Your task to perform on an android device: open app "Indeed Job Search" (install if not already installed) Image 0: 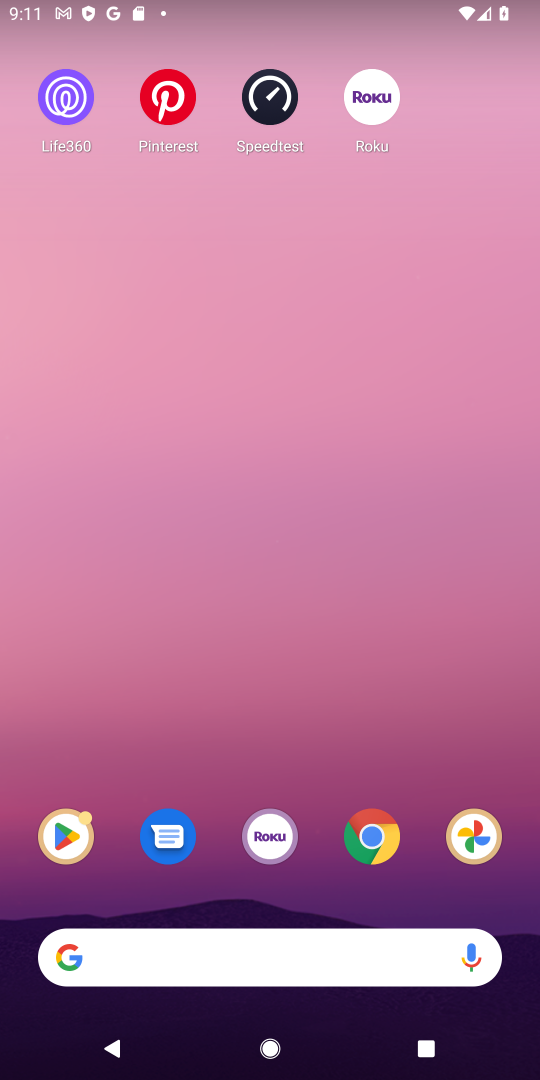
Step 0: drag from (237, 193) to (202, 40)
Your task to perform on an android device: open app "Indeed Job Search" (install if not already installed) Image 1: 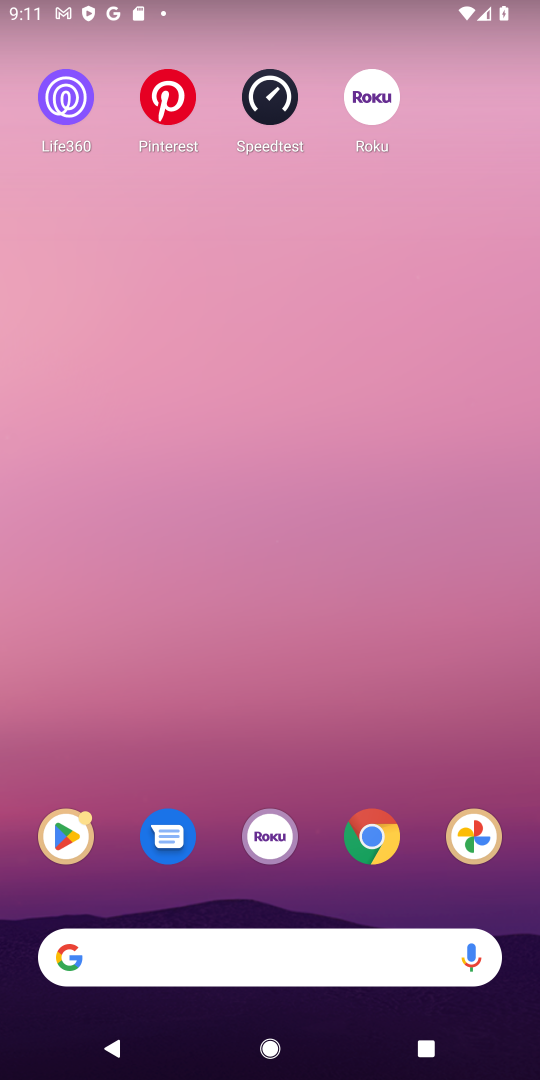
Step 1: drag from (246, 852) to (277, 76)
Your task to perform on an android device: open app "Indeed Job Search" (install if not already installed) Image 2: 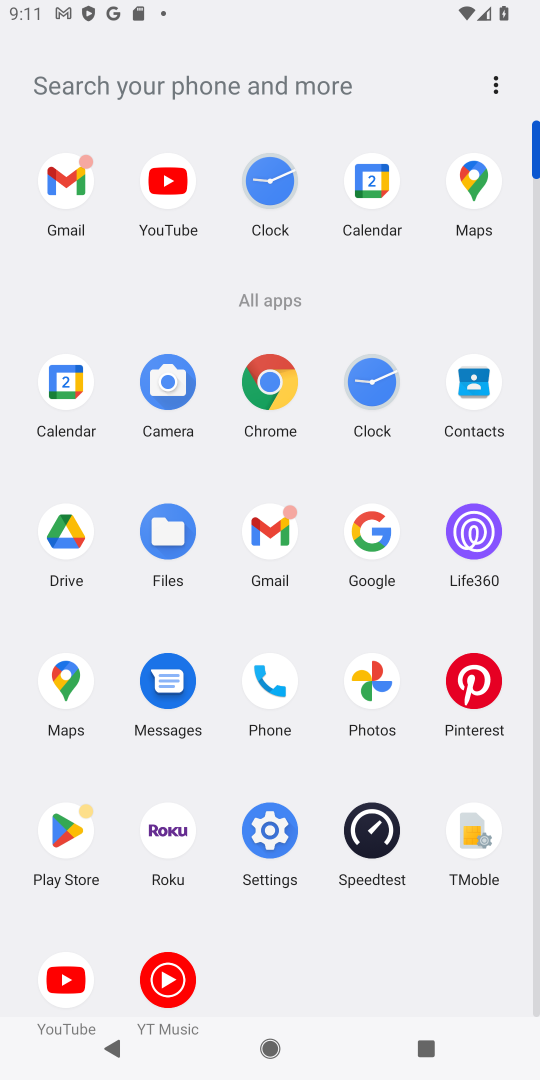
Step 2: click (75, 813)
Your task to perform on an android device: open app "Indeed Job Search" (install if not already installed) Image 3: 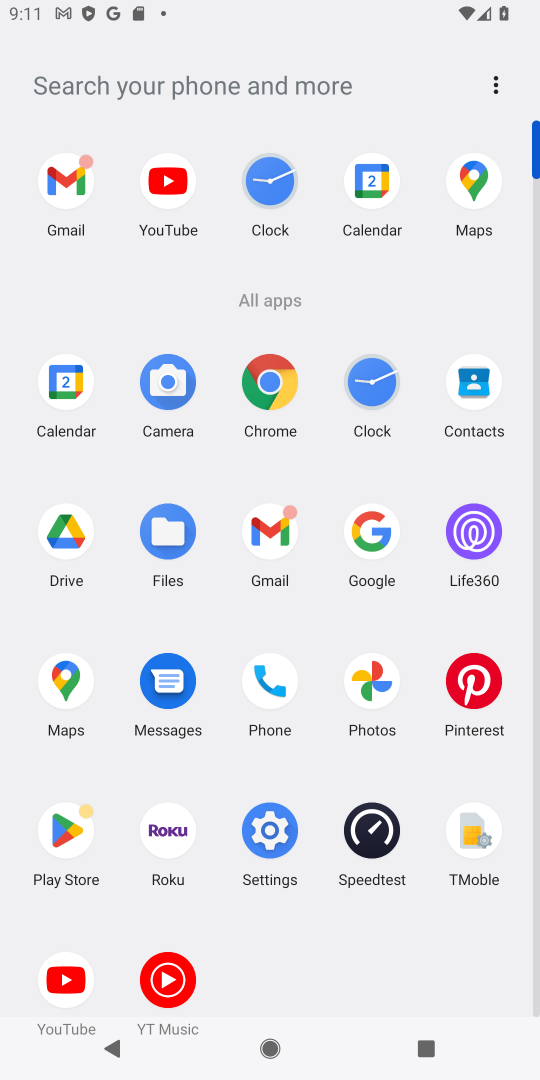
Step 3: click (75, 817)
Your task to perform on an android device: open app "Indeed Job Search" (install if not already installed) Image 4: 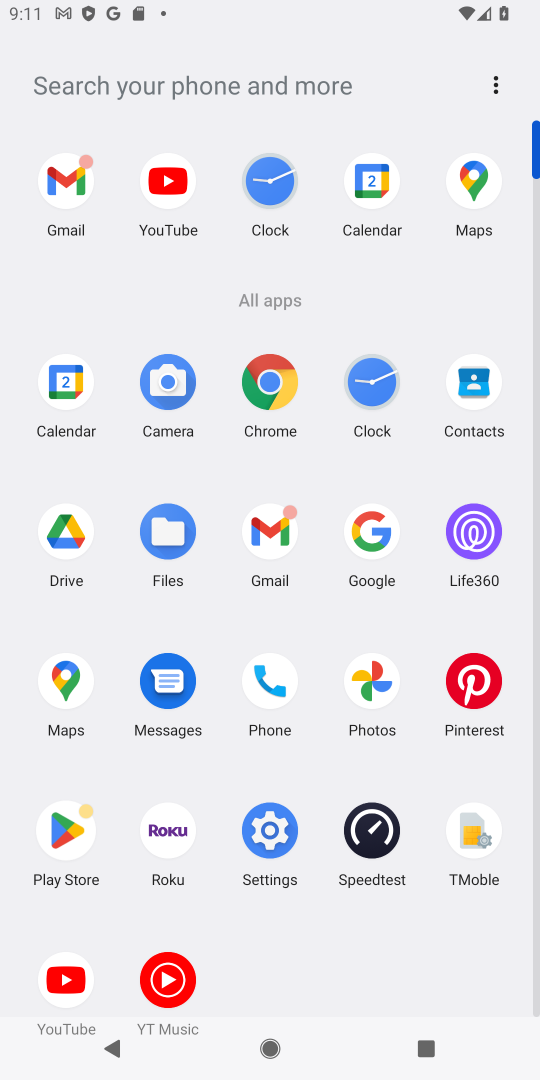
Step 4: click (74, 816)
Your task to perform on an android device: open app "Indeed Job Search" (install if not already installed) Image 5: 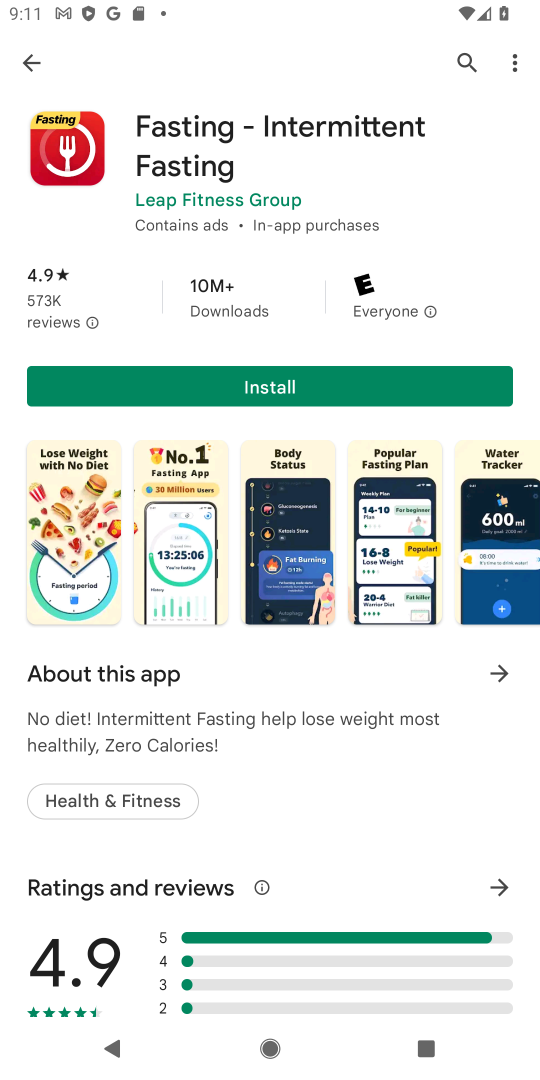
Step 5: click (30, 65)
Your task to perform on an android device: open app "Indeed Job Search" (install if not already installed) Image 6: 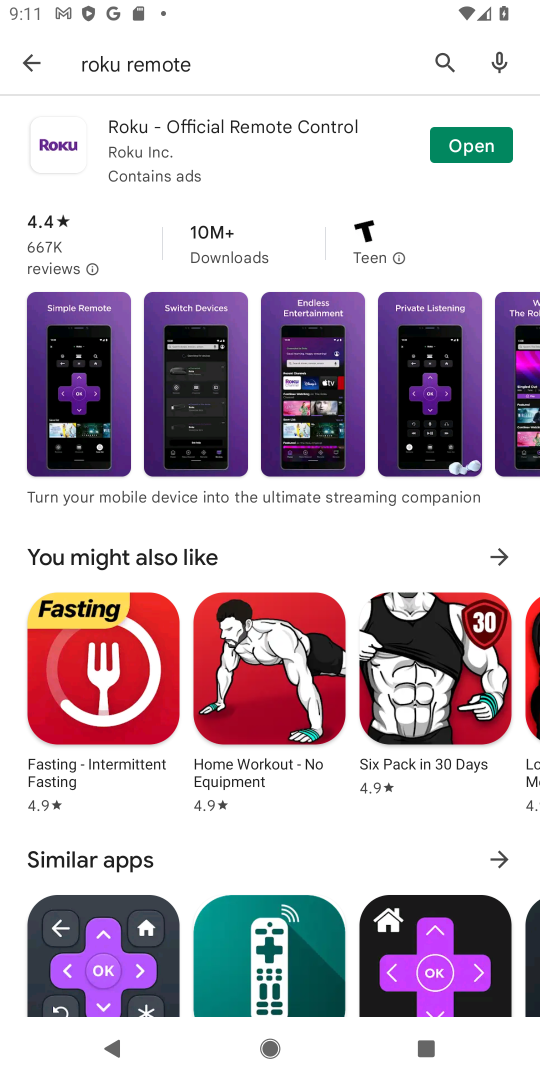
Step 6: click (438, 53)
Your task to perform on an android device: open app "Indeed Job Search" (install if not already installed) Image 7: 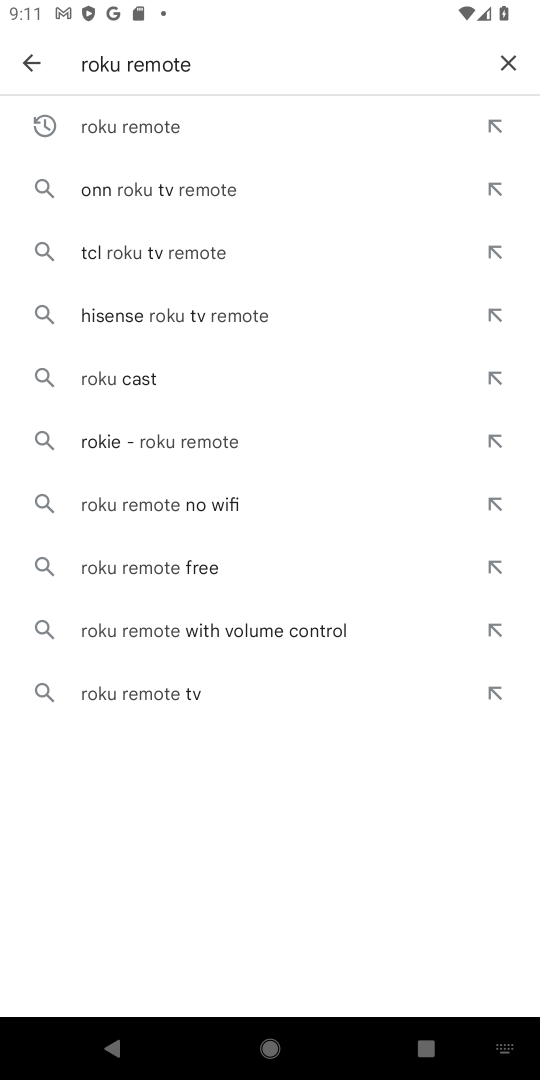
Step 7: click (507, 54)
Your task to perform on an android device: open app "Indeed Job Search" (install if not already installed) Image 8: 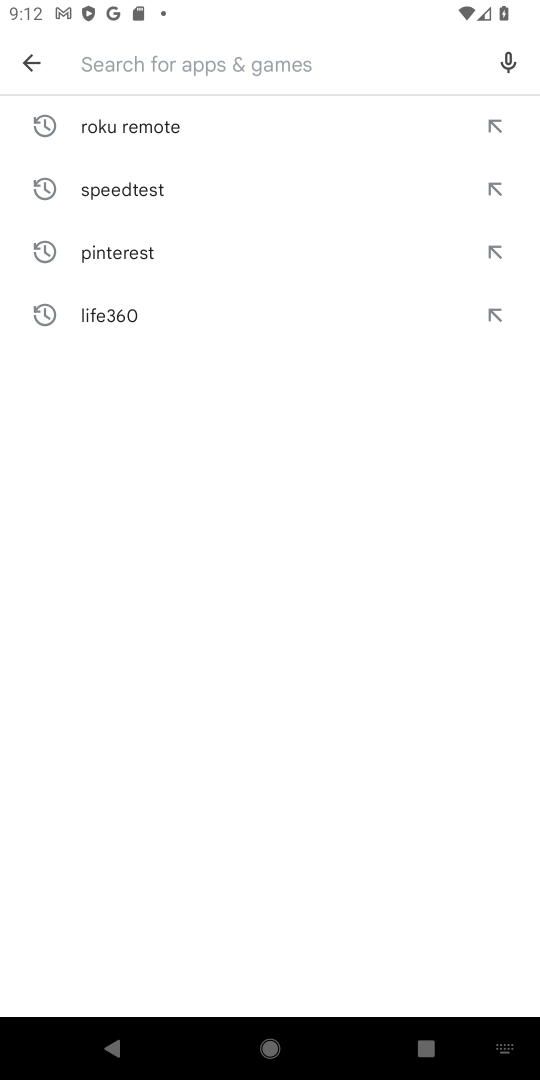
Step 8: type "indeed job search"
Your task to perform on an android device: open app "Indeed Job Search" (install if not already installed) Image 9: 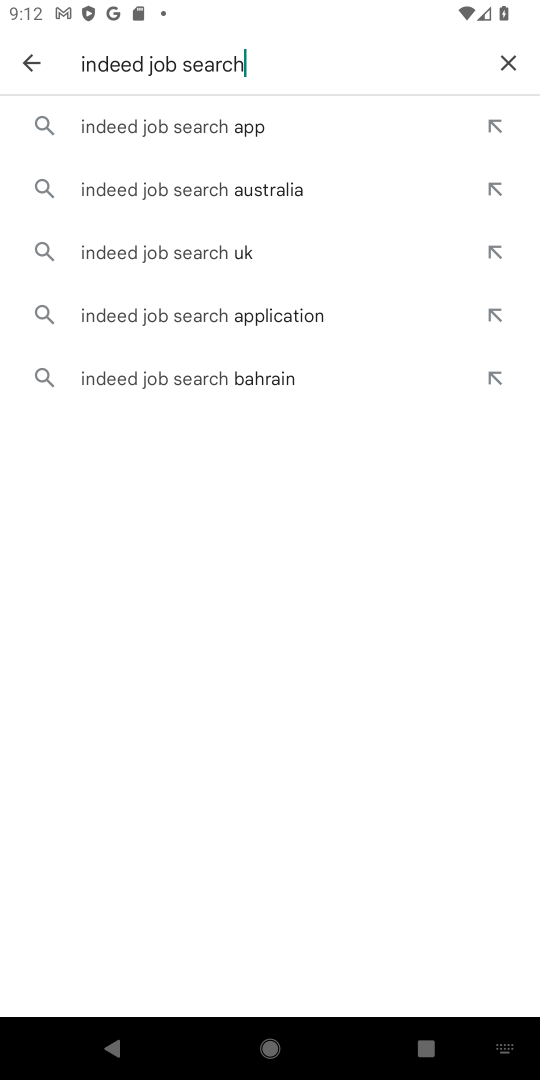
Step 9: click (194, 127)
Your task to perform on an android device: open app "Indeed Job Search" (install if not already installed) Image 10: 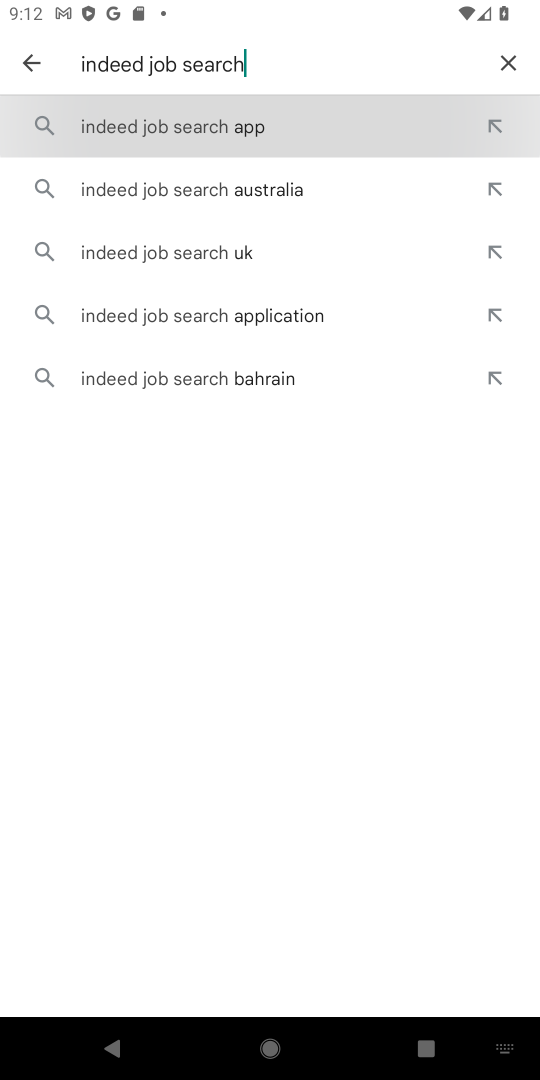
Step 10: click (193, 137)
Your task to perform on an android device: open app "Indeed Job Search" (install if not already installed) Image 11: 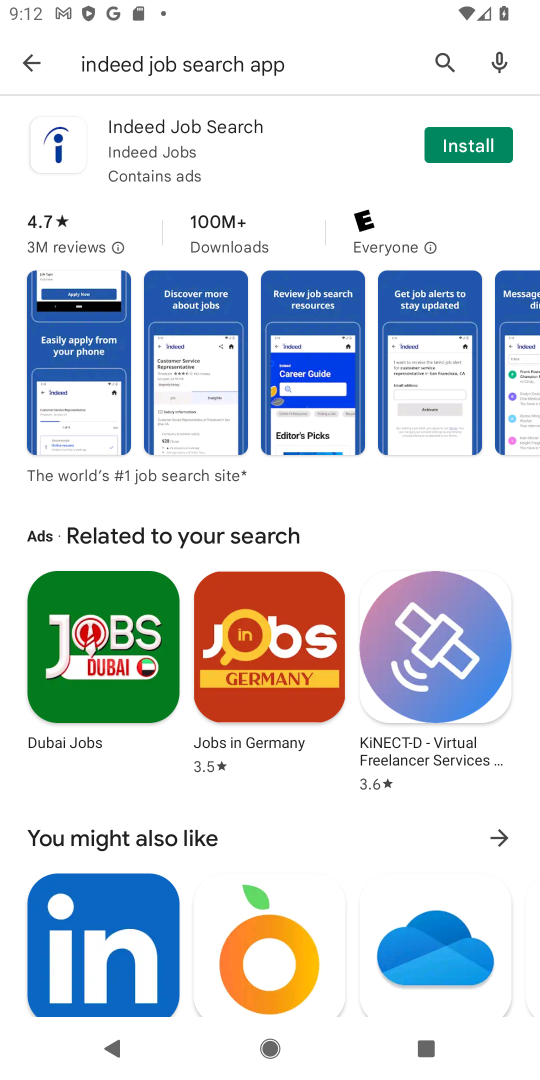
Step 11: click (460, 151)
Your task to perform on an android device: open app "Indeed Job Search" (install if not already installed) Image 12: 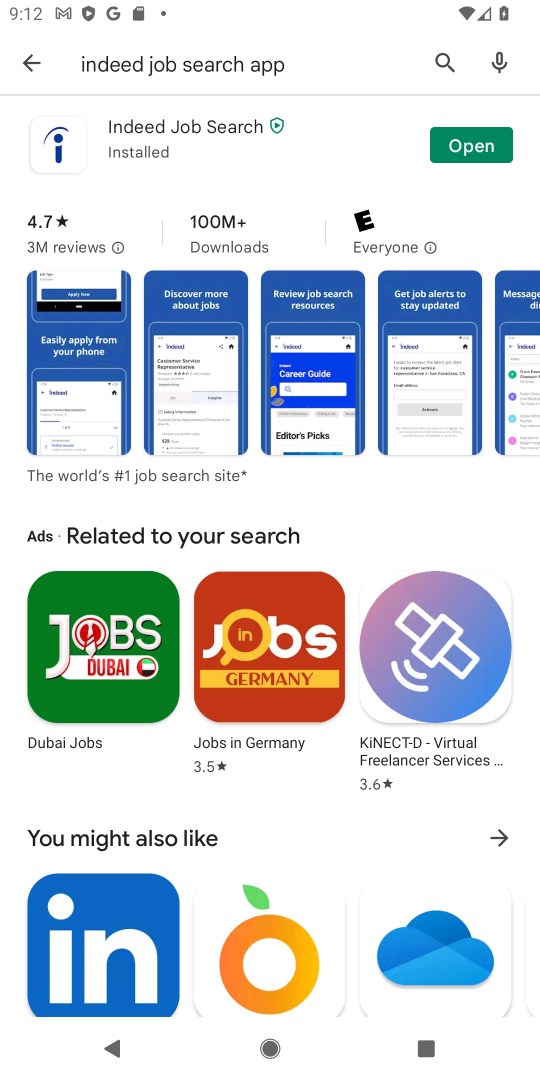
Step 12: click (474, 135)
Your task to perform on an android device: open app "Indeed Job Search" (install if not already installed) Image 13: 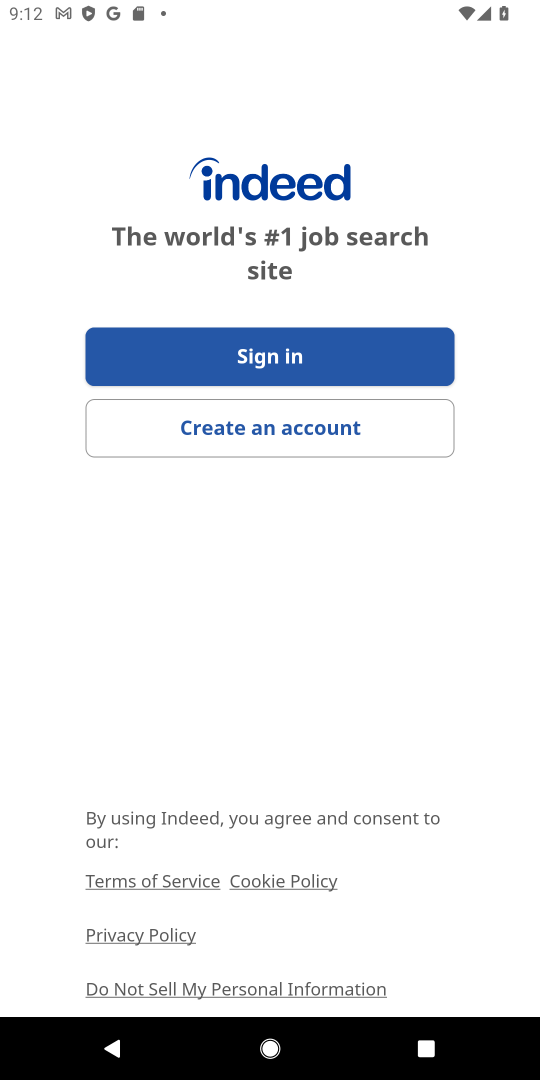
Step 13: click (318, 358)
Your task to perform on an android device: open app "Indeed Job Search" (install if not already installed) Image 14: 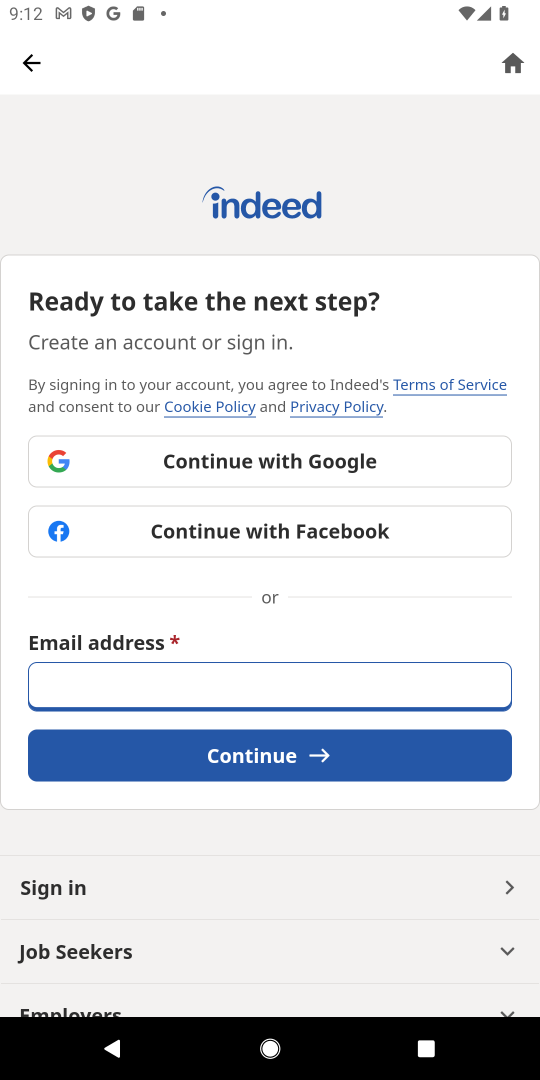
Step 14: task complete